Your task to perform on an android device: Go to wifi settings Image 0: 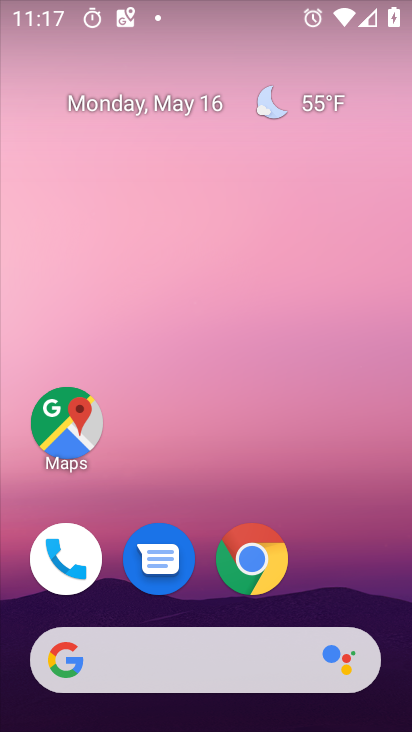
Step 0: drag from (384, 483) to (389, 163)
Your task to perform on an android device: Go to wifi settings Image 1: 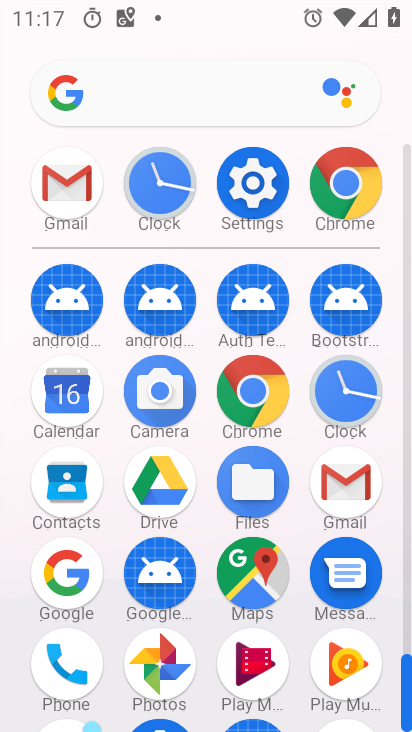
Step 1: click (277, 185)
Your task to perform on an android device: Go to wifi settings Image 2: 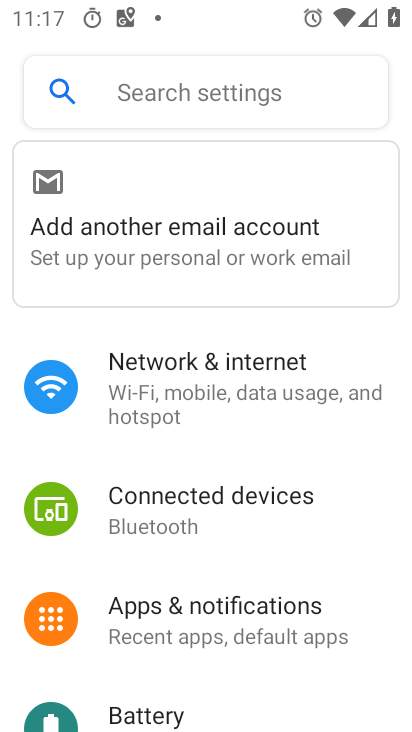
Step 2: click (234, 207)
Your task to perform on an android device: Go to wifi settings Image 3: 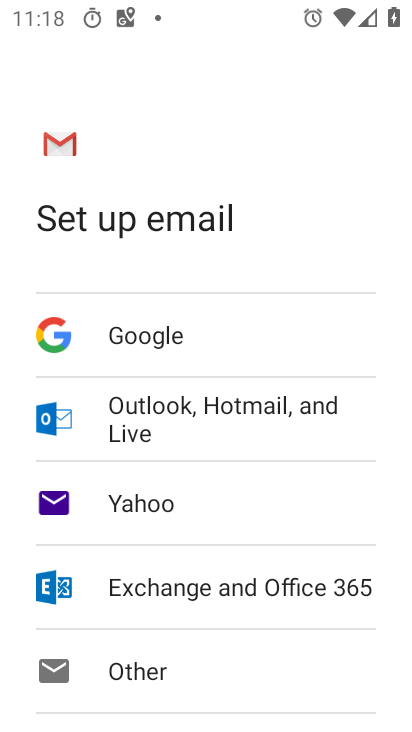
Step 3: press back button
Your task to perform on an android device: Go to wifi settings Image 4: 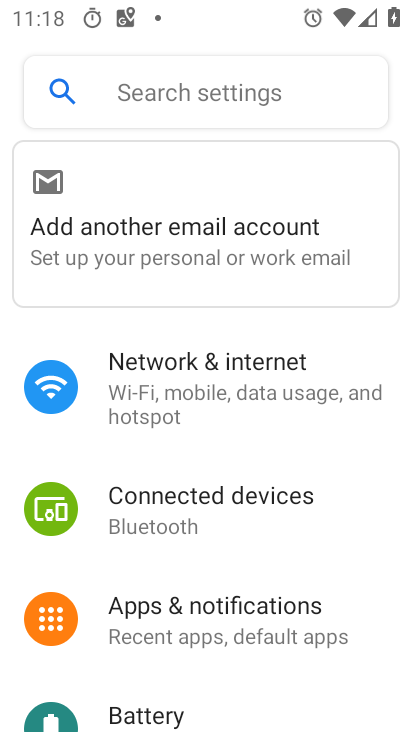
Step 4: click (204, 391)
Your task to perform on an android device: Go to wifi settings Image 5: 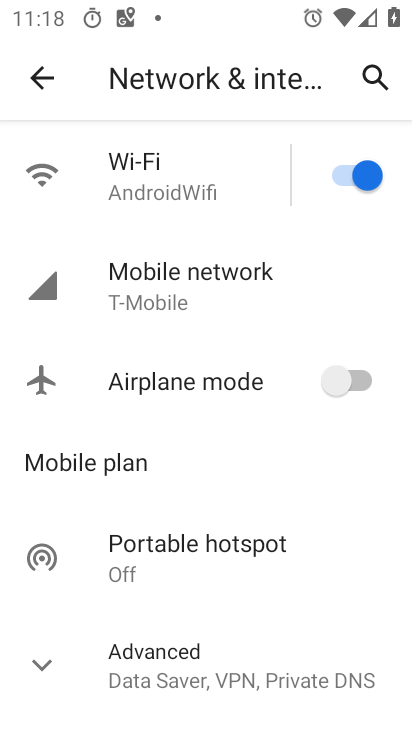
Step 5: click (255, 163)
Your task to perform on an android device: Go to wifi settings Image 6: 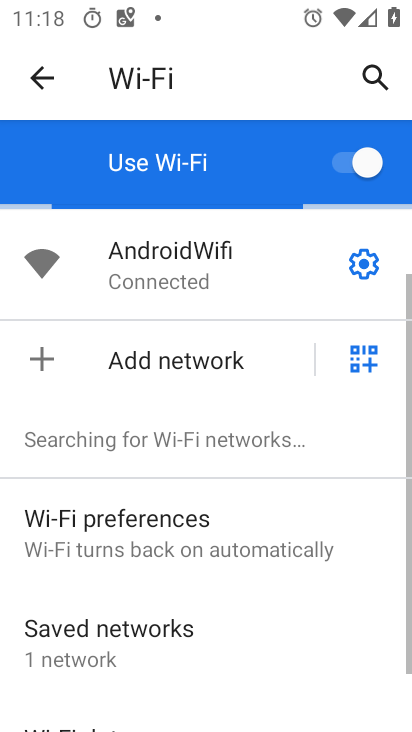
Step 6: click (361, 265)
Your task to perform on an android device: Go to wifi settings Image 7: 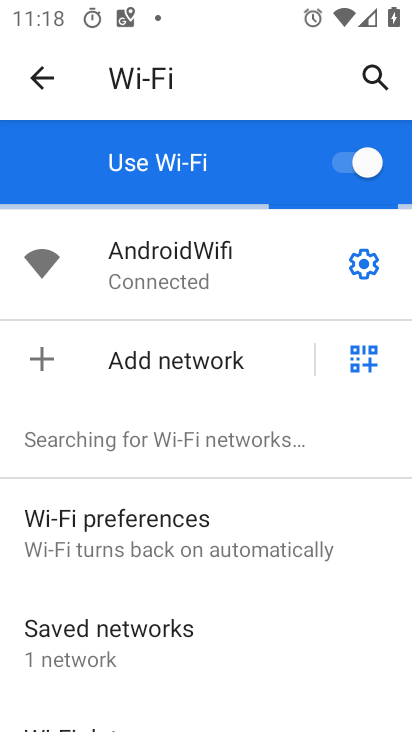
Step 7: click (367, 264)
Your task to perform on an android device: Go to wifi settings Image 8: 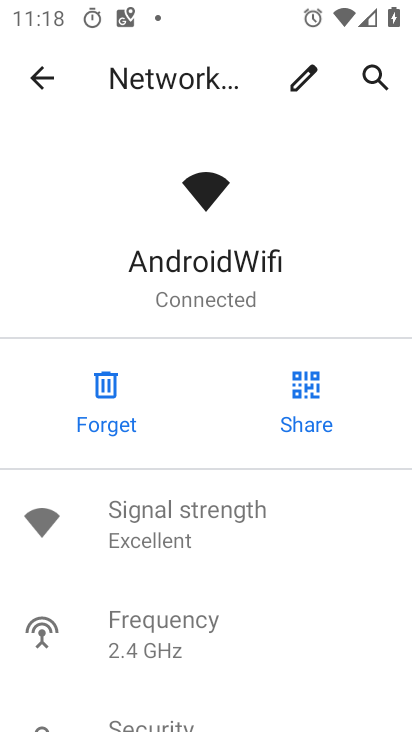
Step 8: task complete